Your task to perform on an android device: Open Maps and search for coffee Image 0: 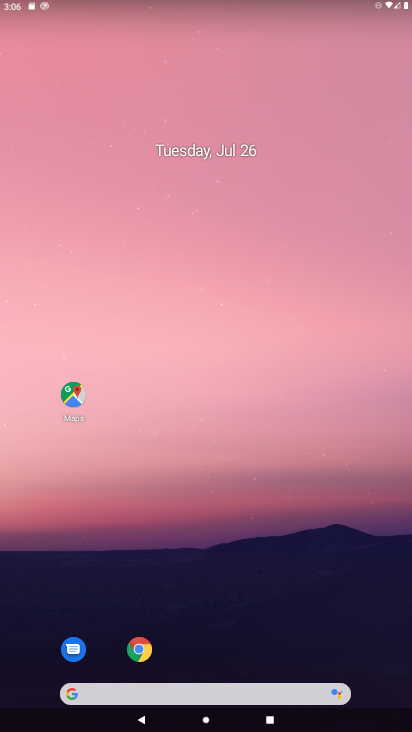
Step 0: click (67, 392)
Your task to perform on an android device: Open Maps and search for coffee Image 1: 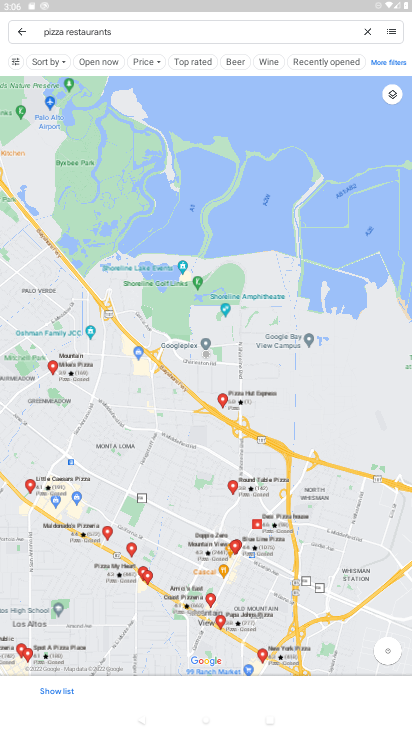
Step 1: click (135, 25)
Your task to perform on an android device: Open Maps and search for coffee Image 2: 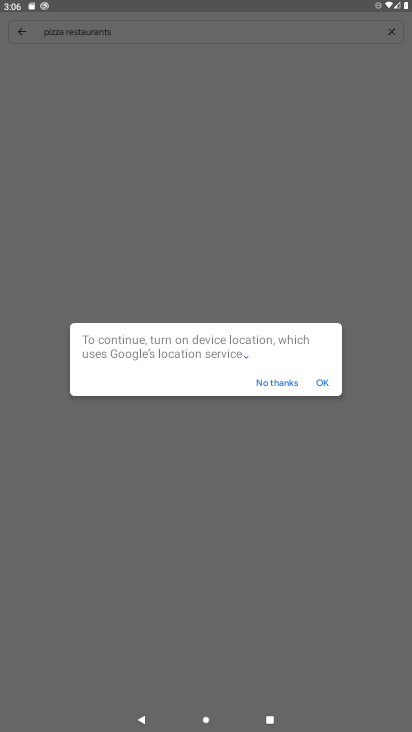
Step 2: click (322, 384)
Your task to perform on an android device: Open Maps and search for coffee Image 3: 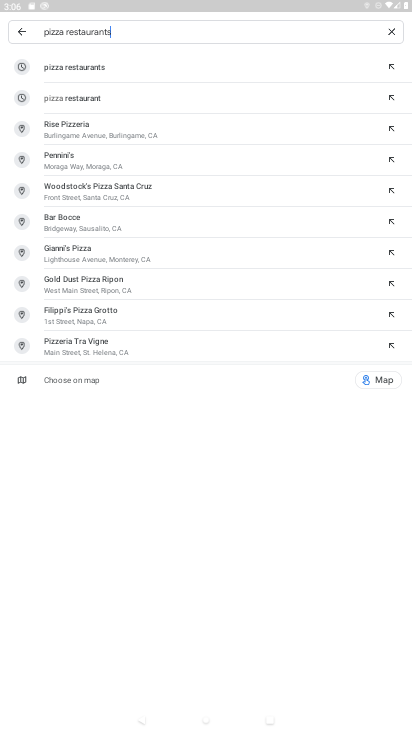
Step 3: click (392, 29)
Your task to perform on an android device: Open Maps and search for coffee Image 4: 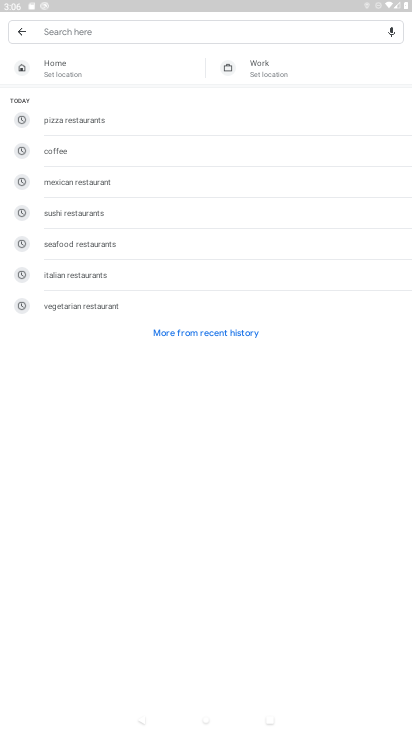
Step 4: type "coffee"
Your task to perform on an android device: Open Maps and search for coffee Image 5: 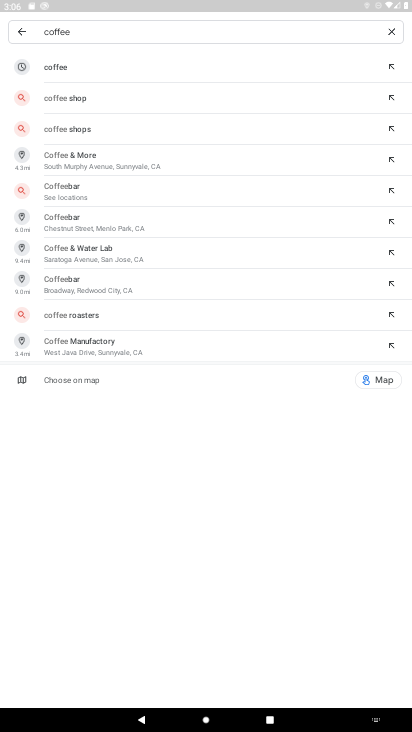
Step 5: click (153, 74)
Your task to perform on an android device: Open Maps and search for coffee Image 6: 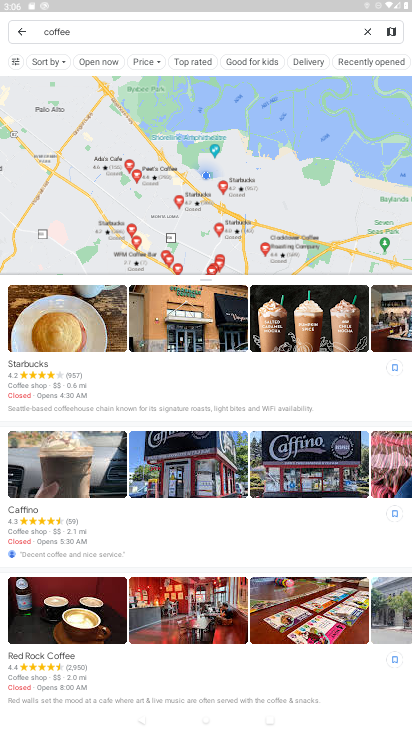
Step 6: task complete